Your task to perform on an android device: open app "PUBG MOBILE" (install if not already installed) Image 0: 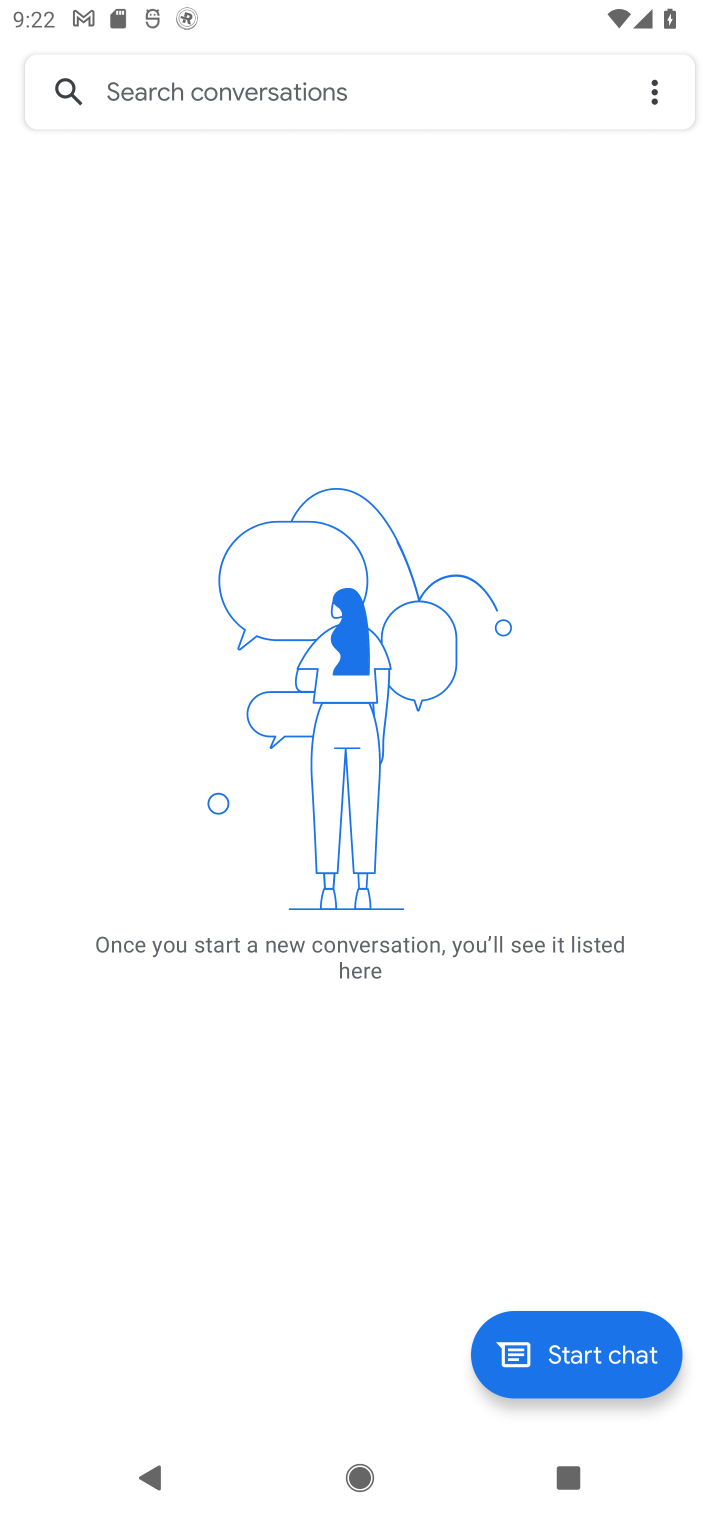
Step 0: press home button
Your task to perform on an android device: open app "PUBG MOBILE" (install if not already installed) Image 1: 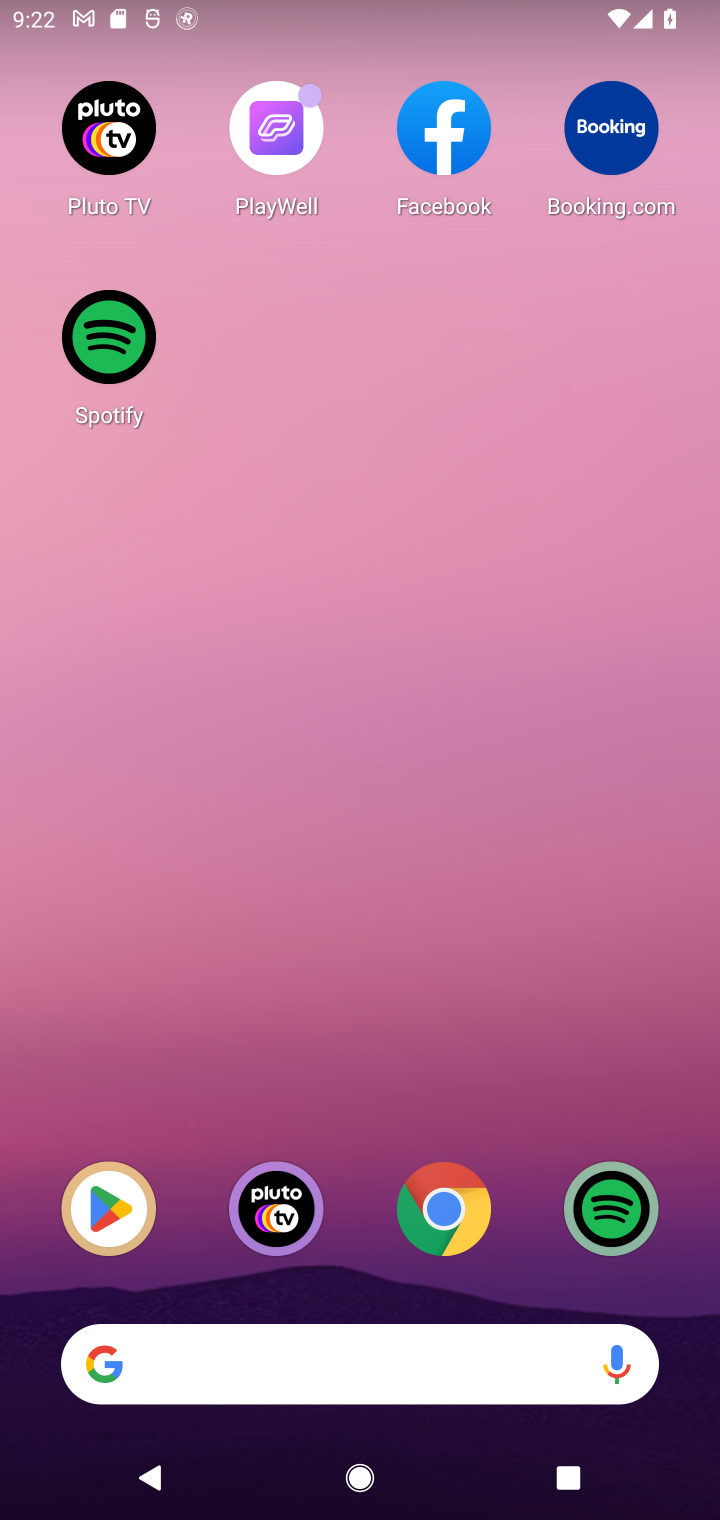
Step 1: drag from (259, 1347) to (290, 235)
Your task to perform on an android device: open app "PUBG MOBILE" (install if not already installed) Image 2: 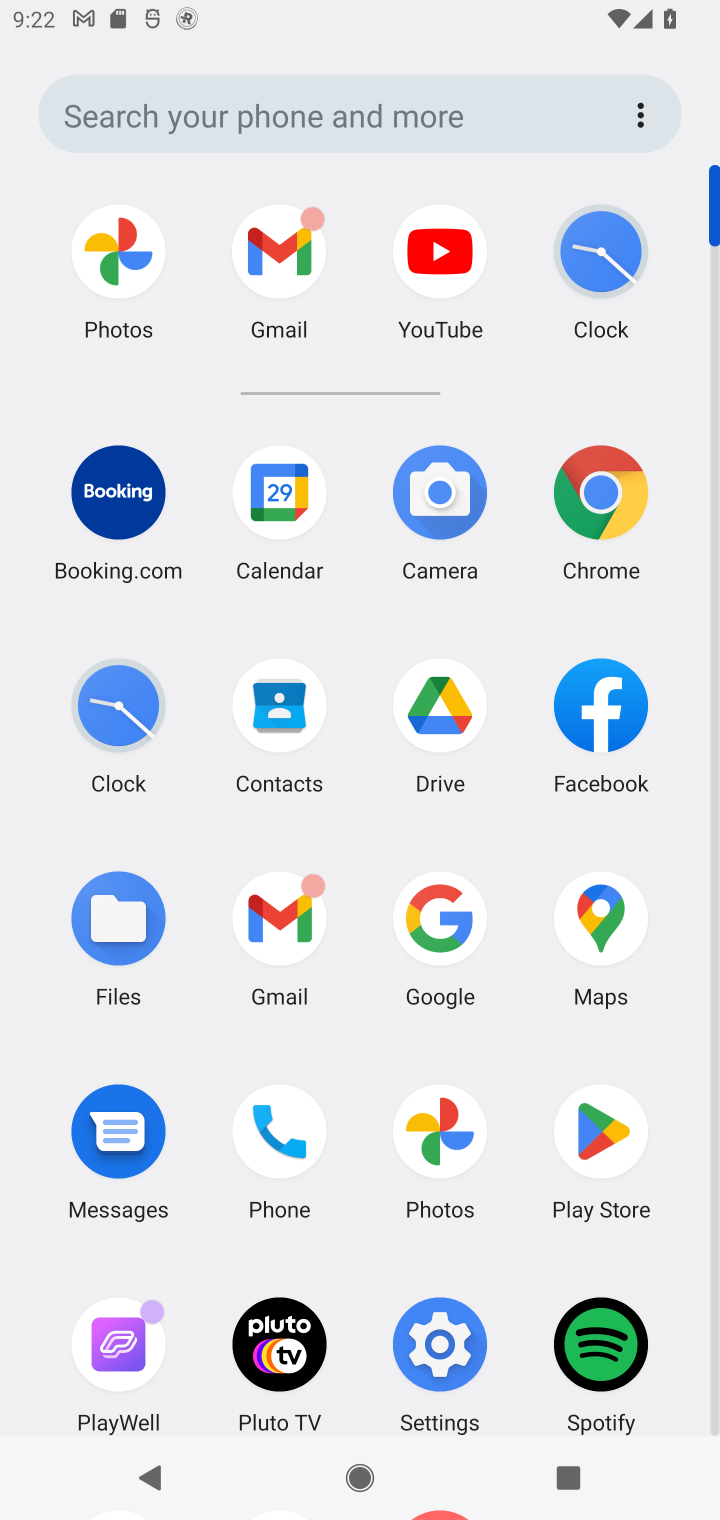
Step 2: drag from (362, 1090) to (362, 460)
Your task to perform on an android device: open app "PUBG MOBILE" (install if not already installed) Image 3: 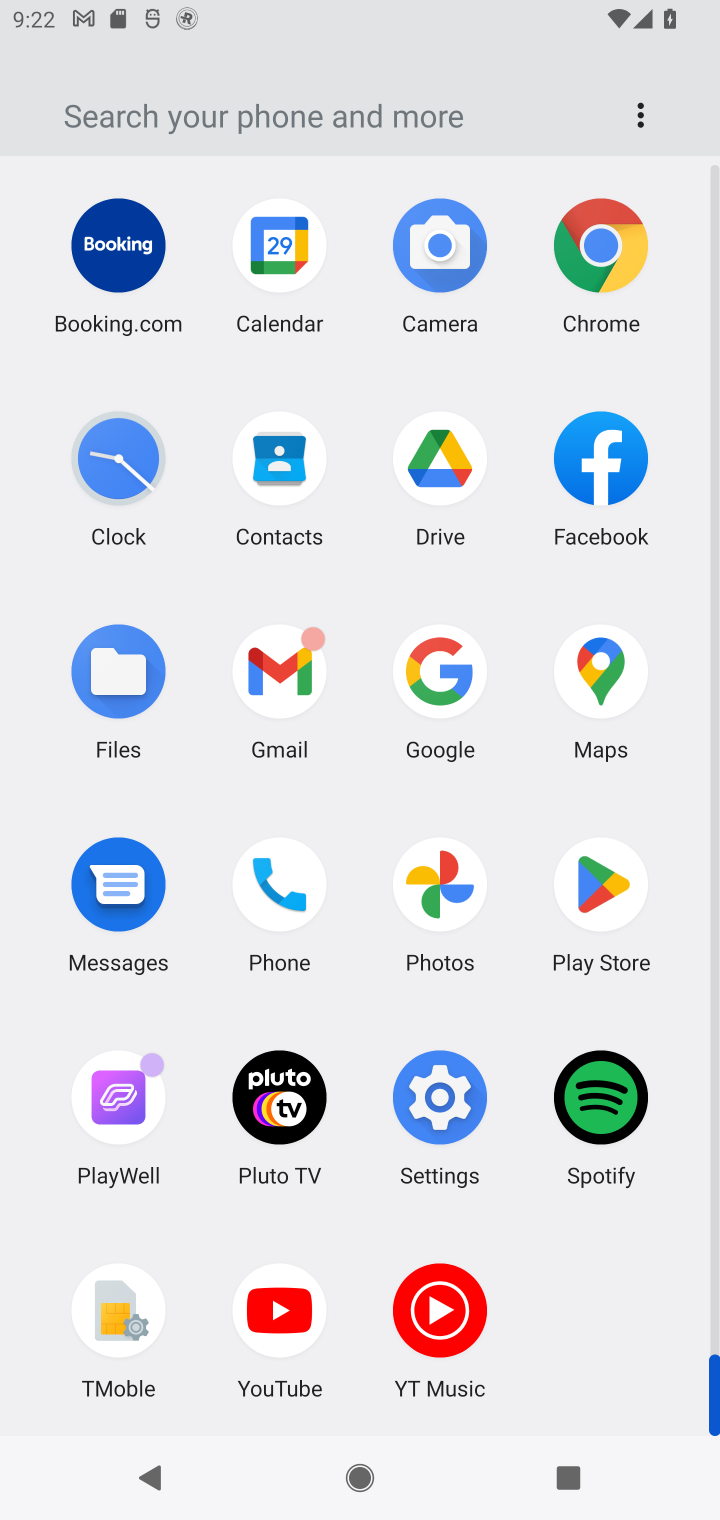
Step 3: click (598, 896)
Your task to perform on an android device: open app "PUBG MOBILE" (install if not already installed) Image 4: 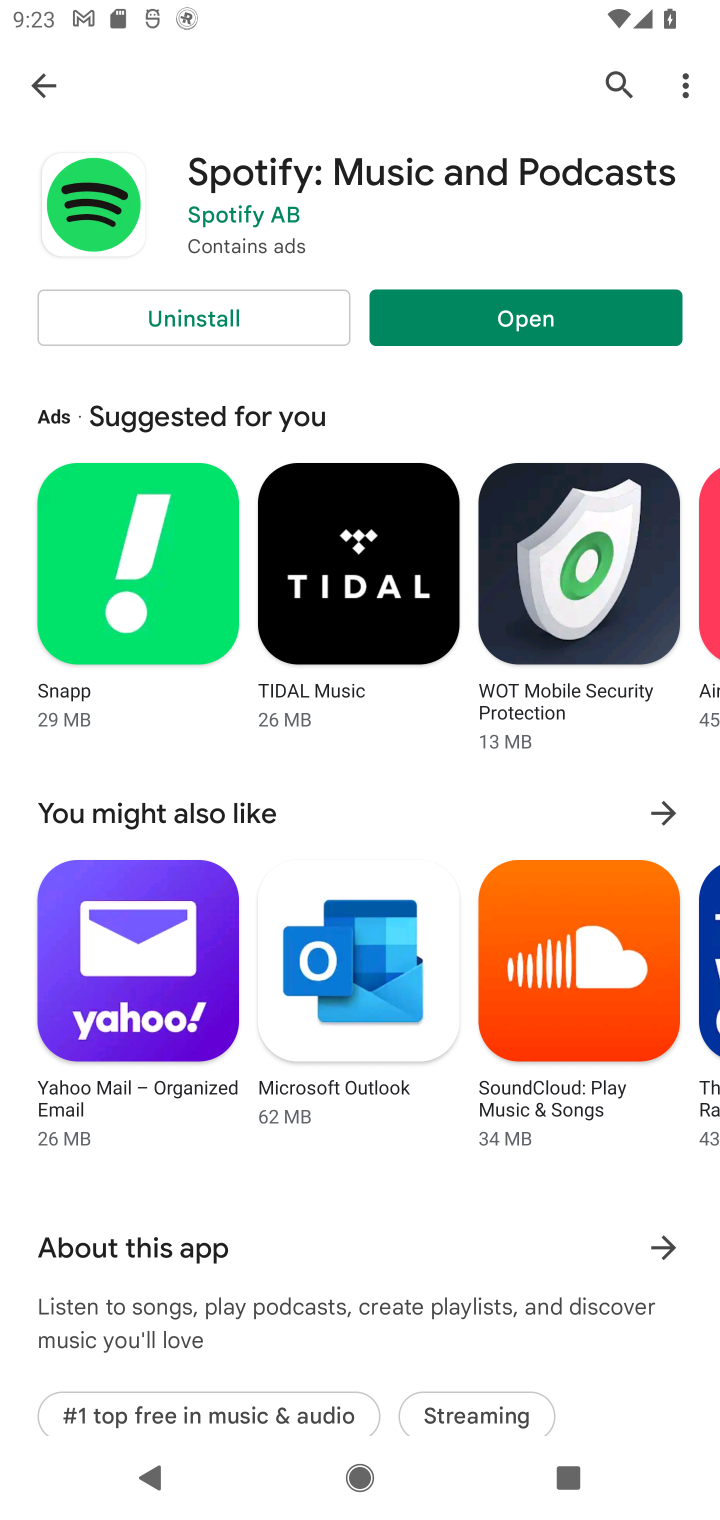
Step 4: click (542, 96)
Your task to perform on an android device: open app "PUBG MOBILE" (install if not already installed) Image 5: 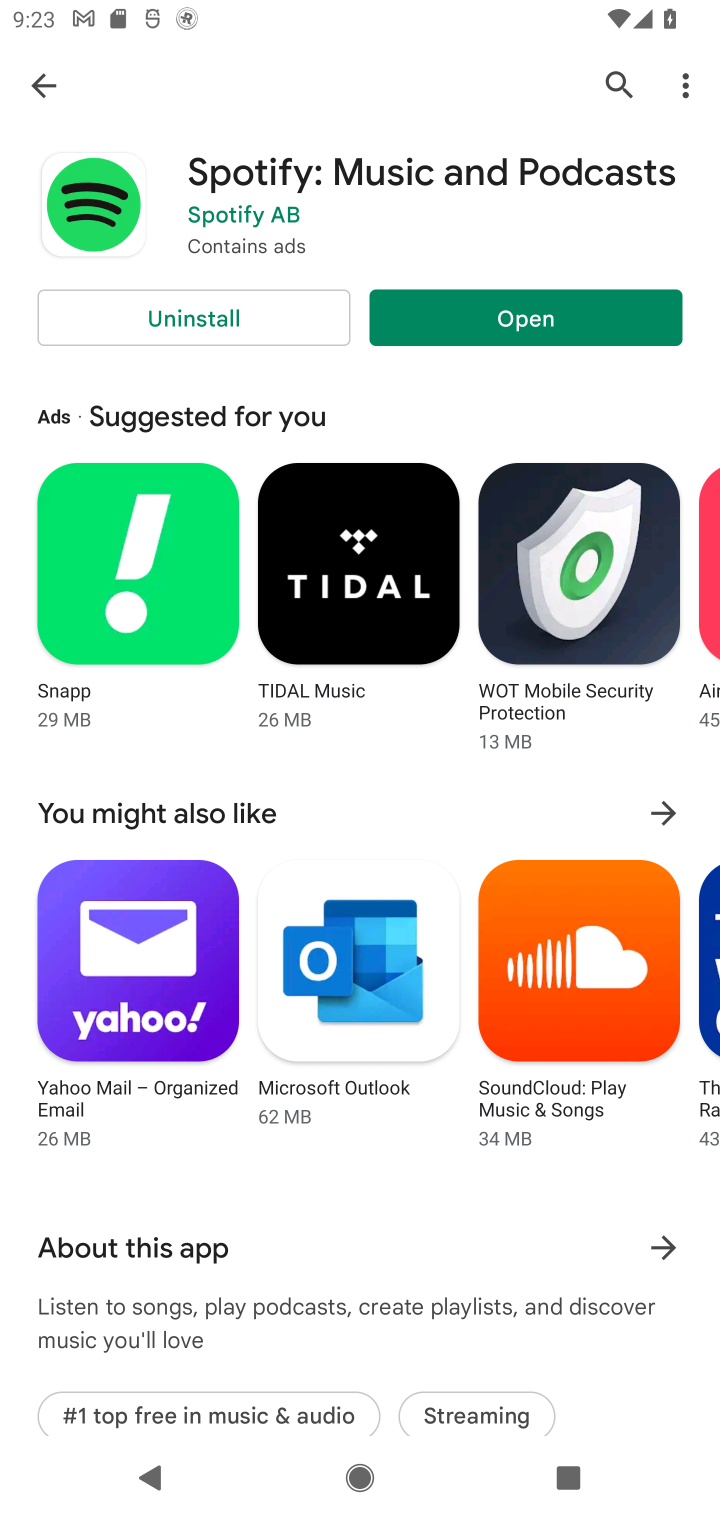
Step 5: click (563, 97)
Your task to perform on an android device: open app "PUBG MOBILE" (install if not already installed) Image 6: 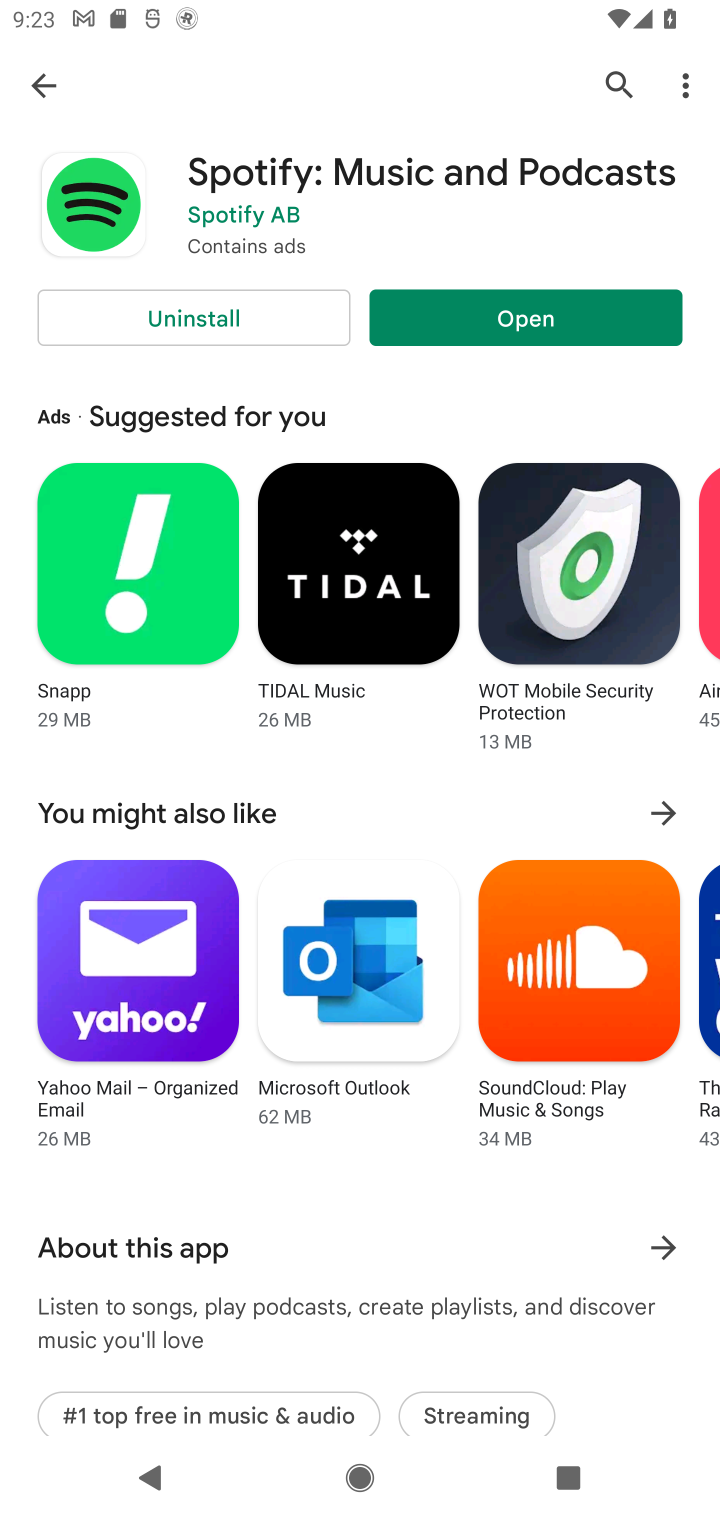
Step 6: click (630, 69)
Your task to perform on an android device: open app "PUBG MOBILE" (install if not already installed) Image 7: 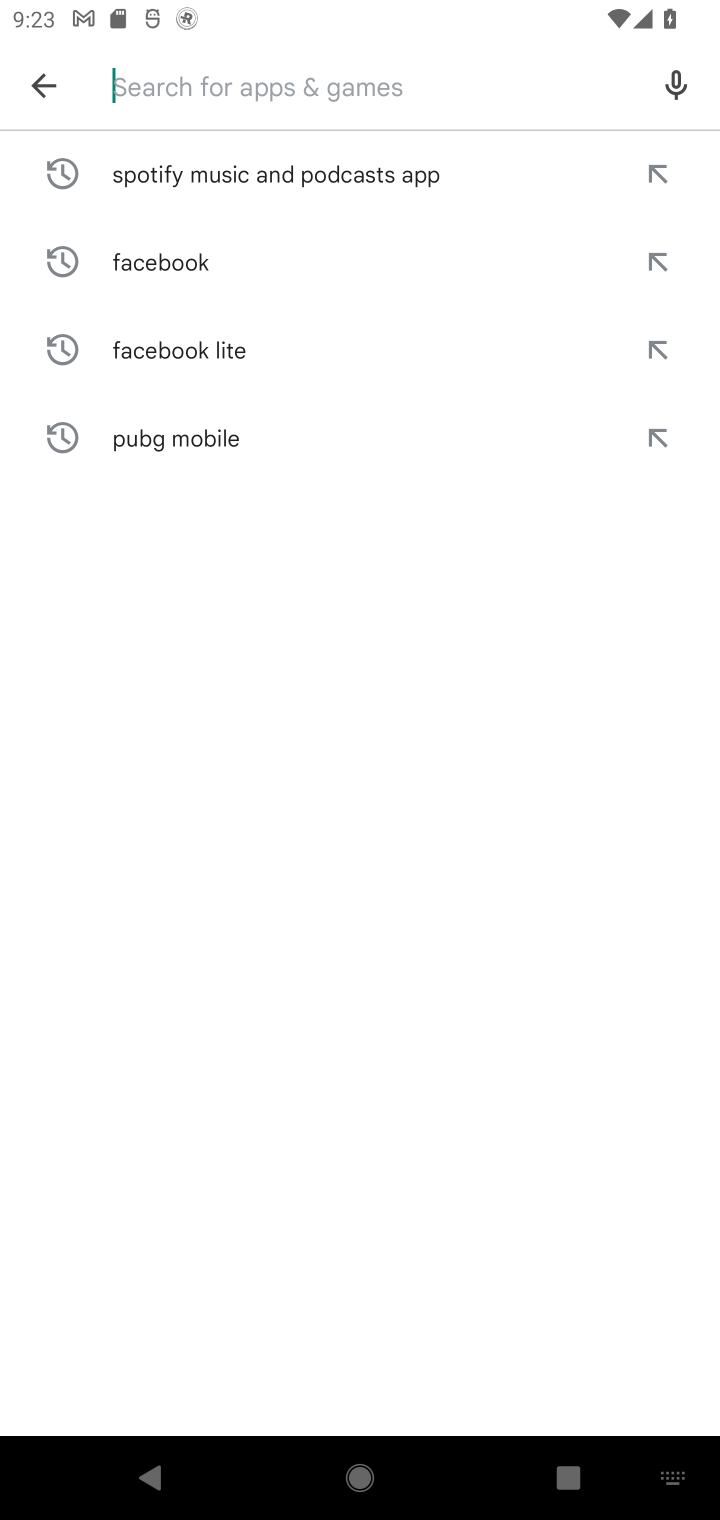
Step 7: click (460, 89)
Your task to perform on an android device: open app "PUBG MOBILE" (install if not already installed) Image 8: 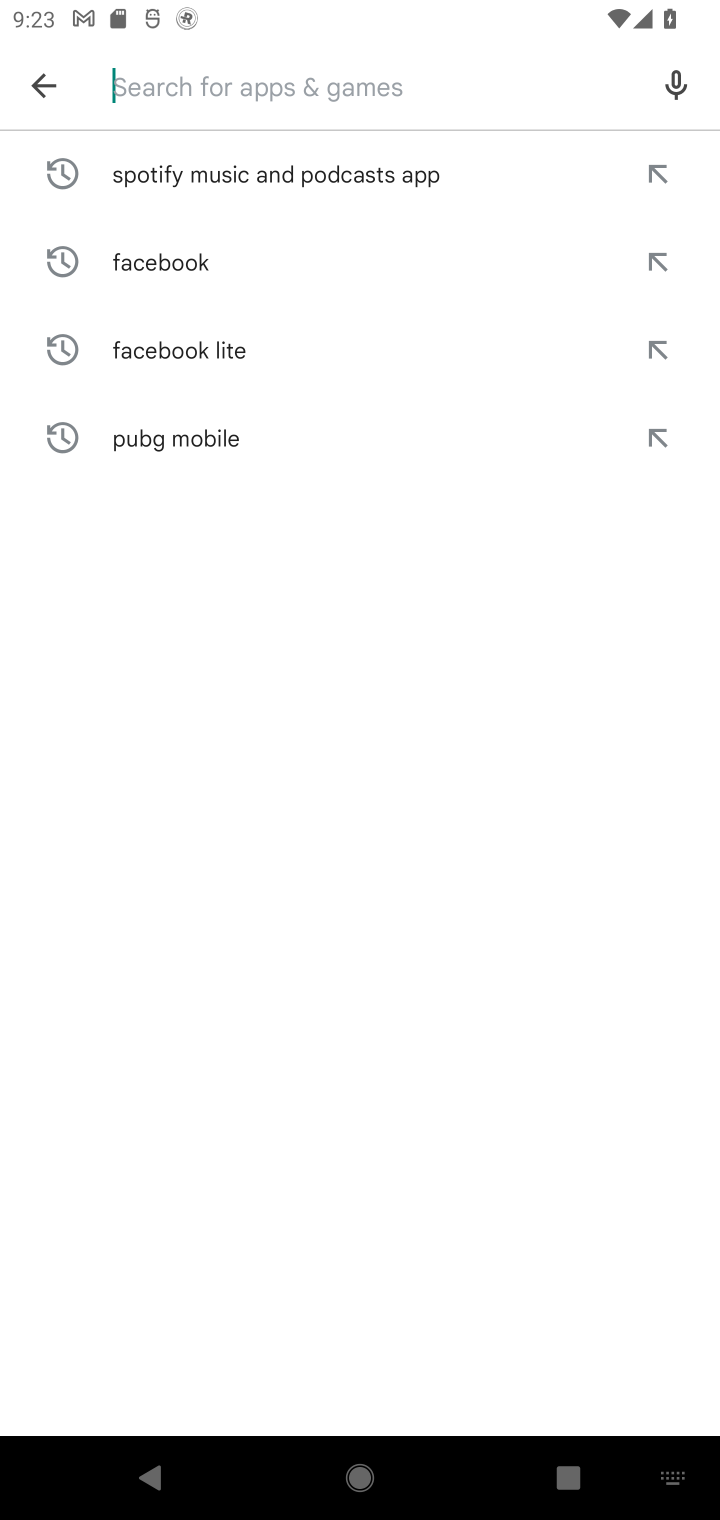
Step 8: type "PUBG MOBILE"
Your task to perform on an android device: open app "PUBG MOBILE" (install if not already installed) Image 9: 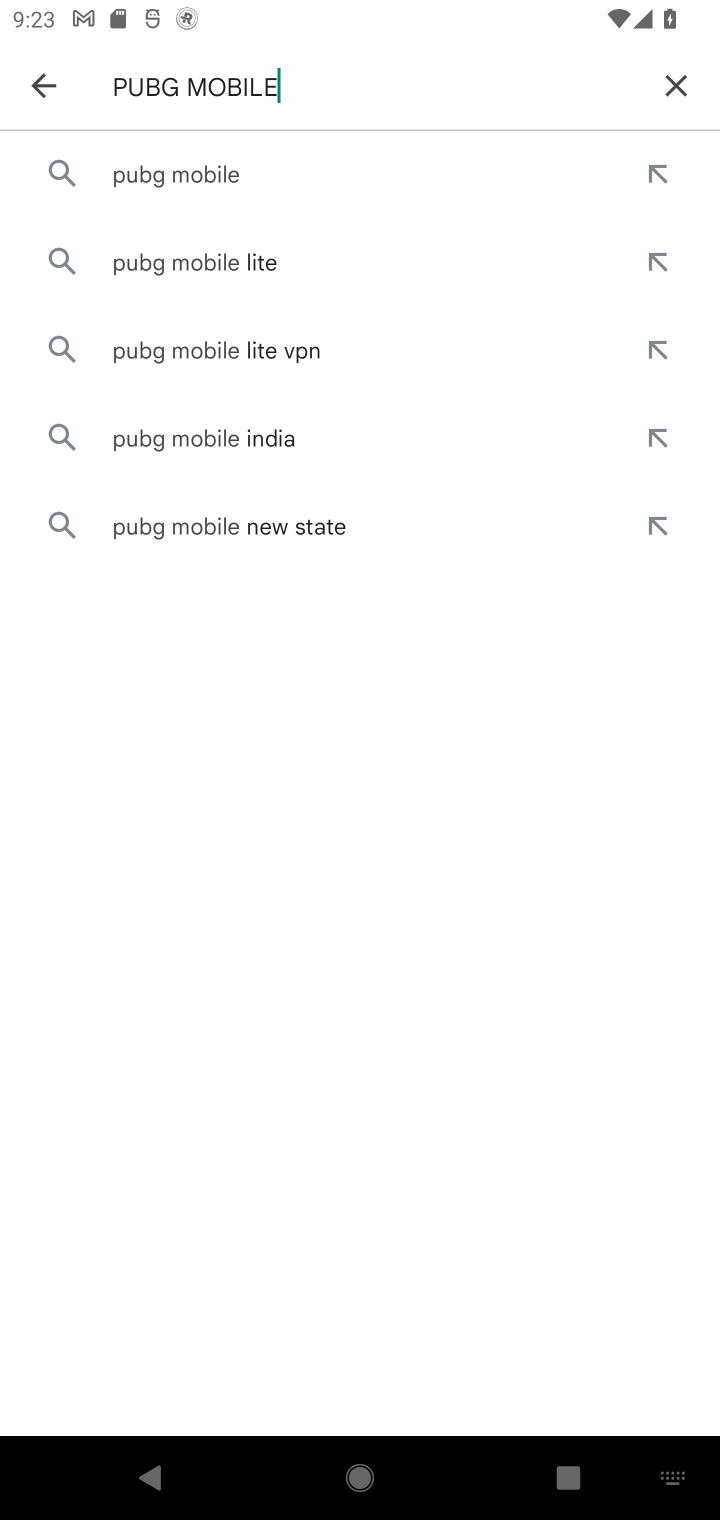
Step 9: click (214, 178)
Your task to perform on an android device: open app "PUBG MOBILE" (install if not already installed) Image 10: 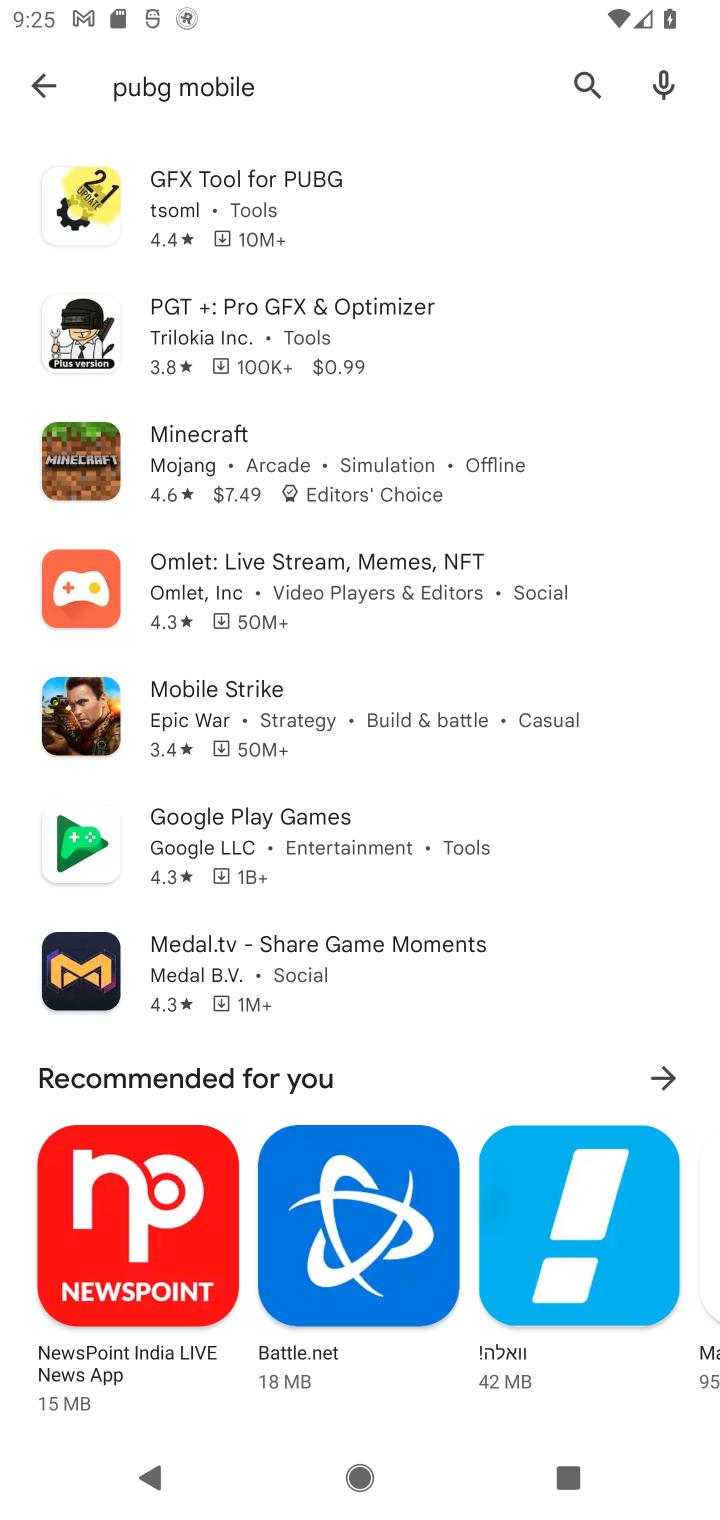
Step 10: task complete